Your task to perform on an android device: open a new tab in the chrome app Image 0: 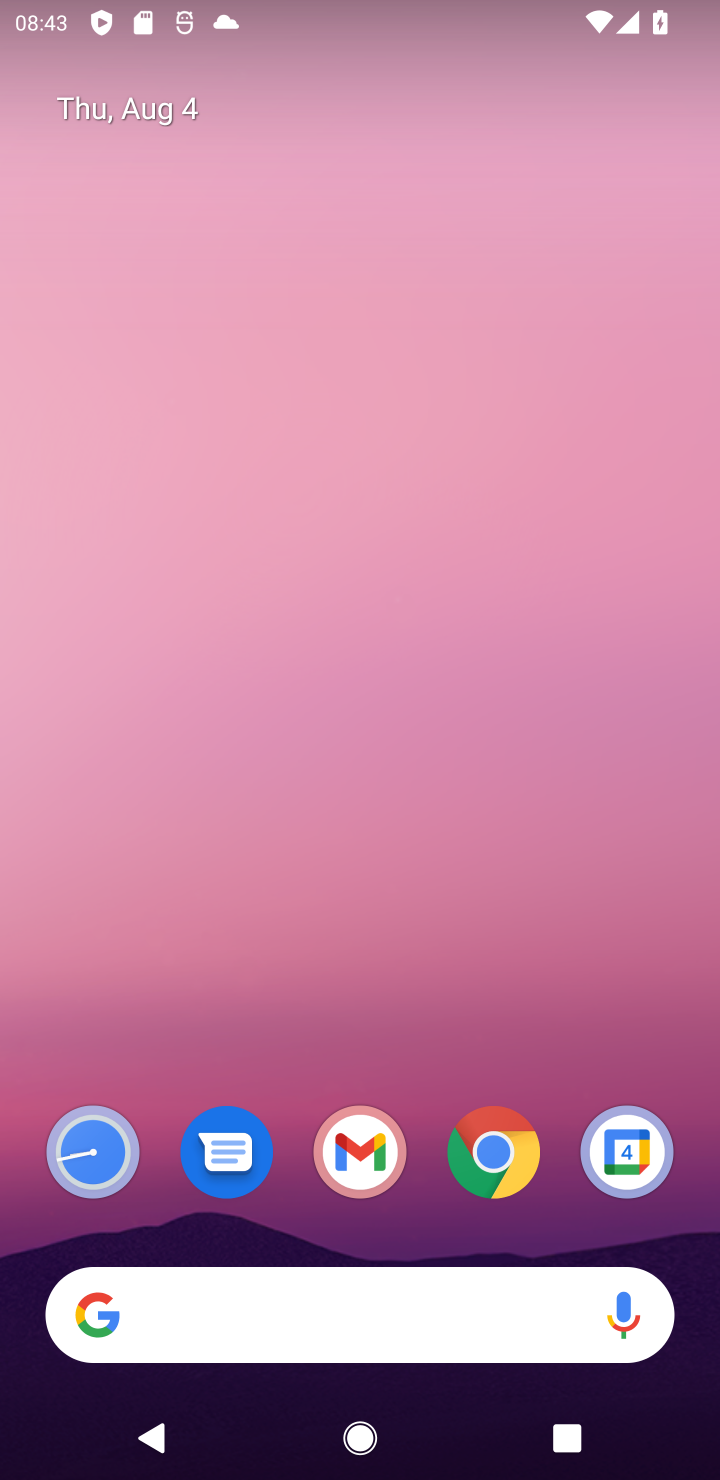
Step 0: click (495, 1142)
Your task to perform on an android device: open a new tab in the chrome app Image 1: 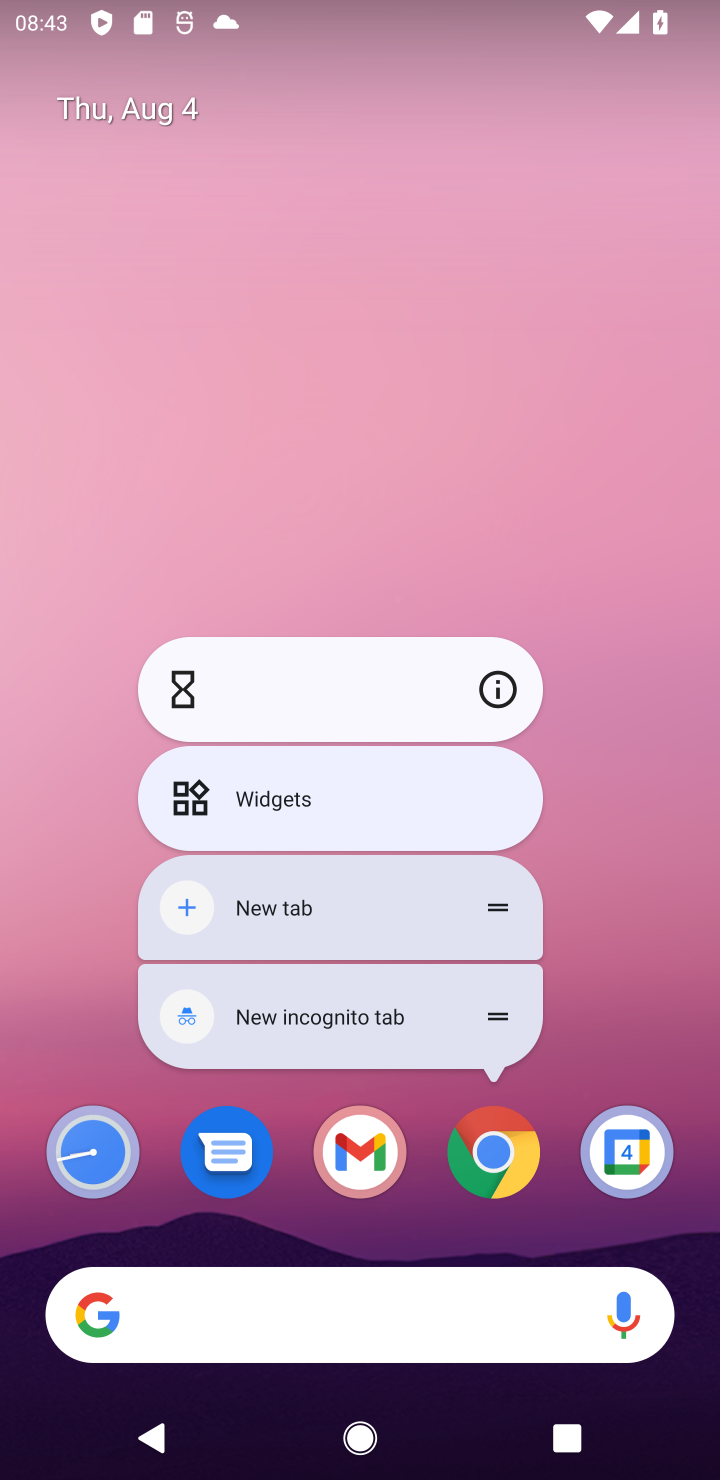
Step 1: click (495, 1142)
Your task to perform on an android device: open a new tab in the chrome app Image 2: 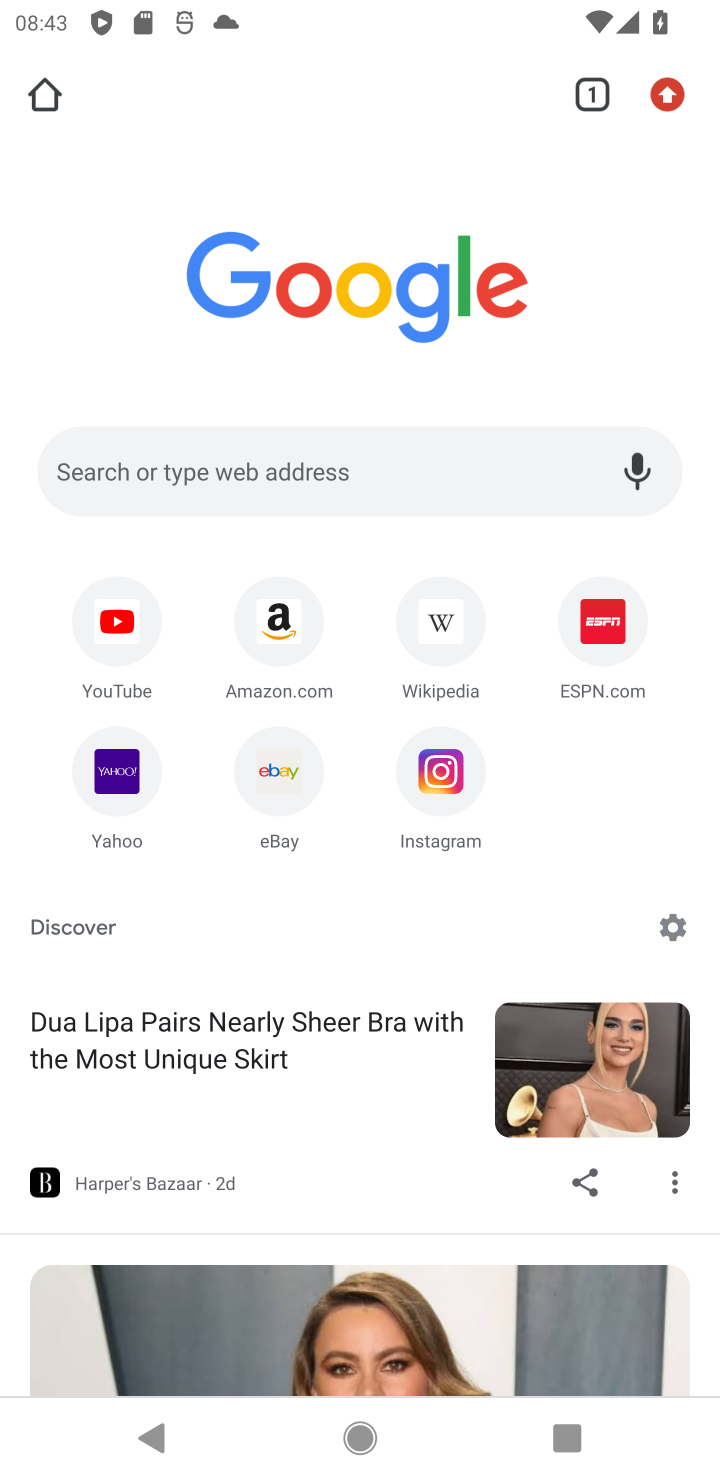
Step 2: click (599, 71)
Your task to perform on an android device: open a new tab in the chrome app Image 3: 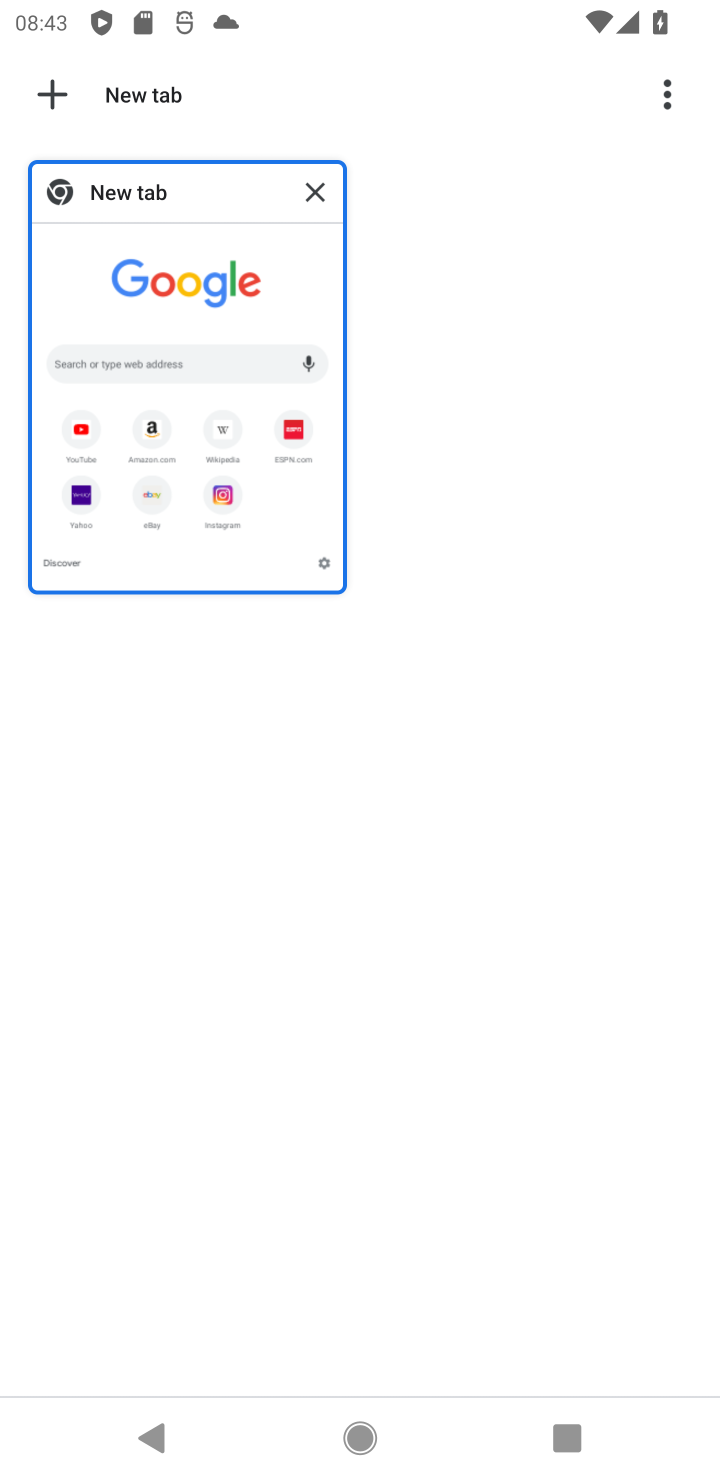
Step 3: click (49, 90)
Your task to perform on an android device: open a new tab in the chrome app Image 4: 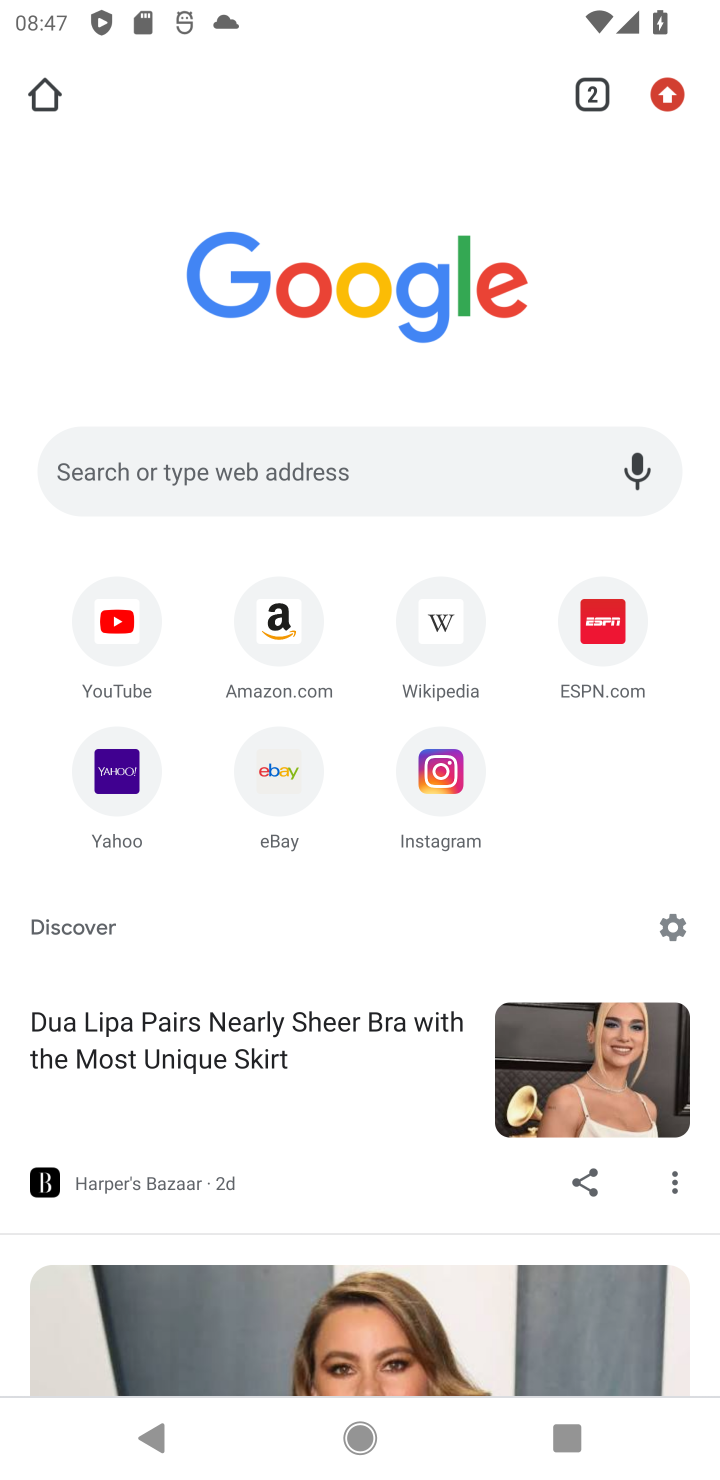
Step 4: click (634, 526)
Your task to perform on an android device: open a new tab in the chrome app Image 5: 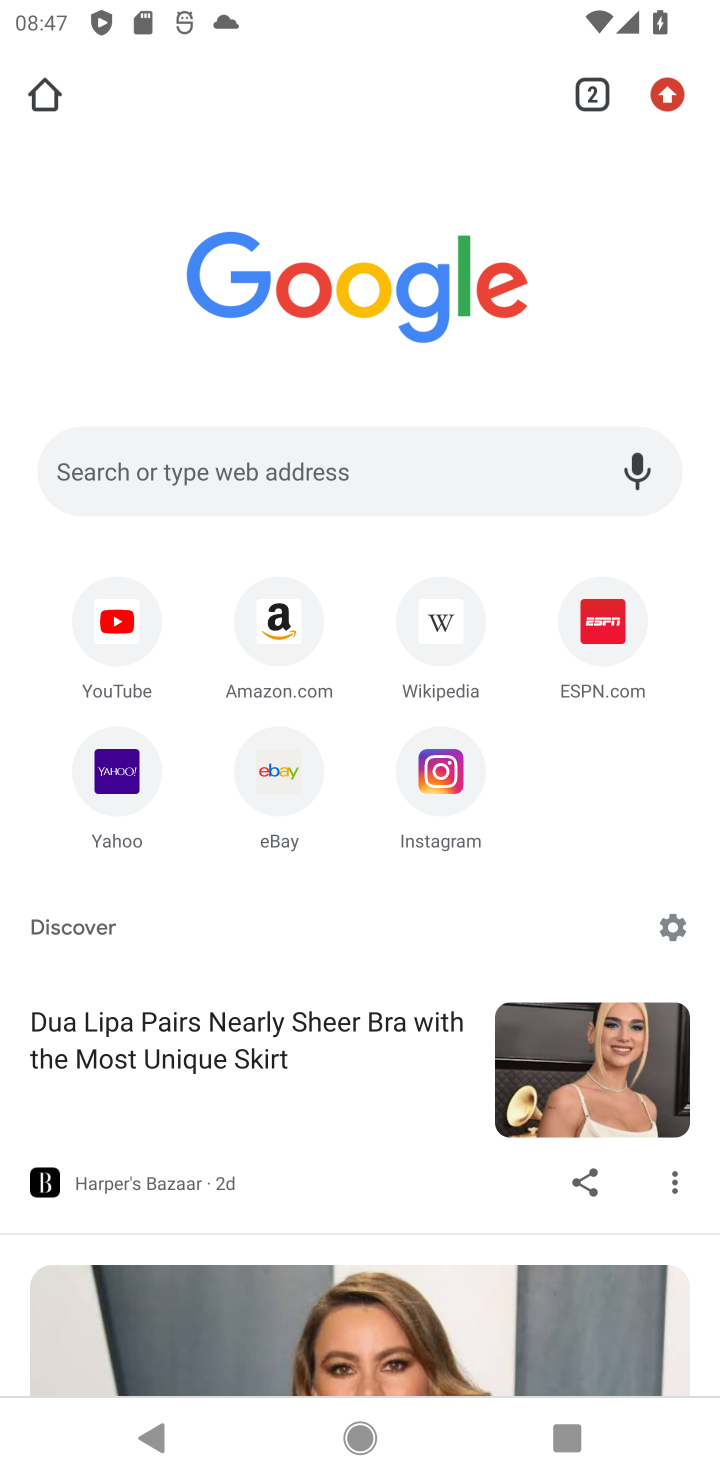
Step 5: task complete